Your task to perform on an android device: open app "NewsBreak: Local News & Alerts" (install if not already installed) and go to login screen Image 0: 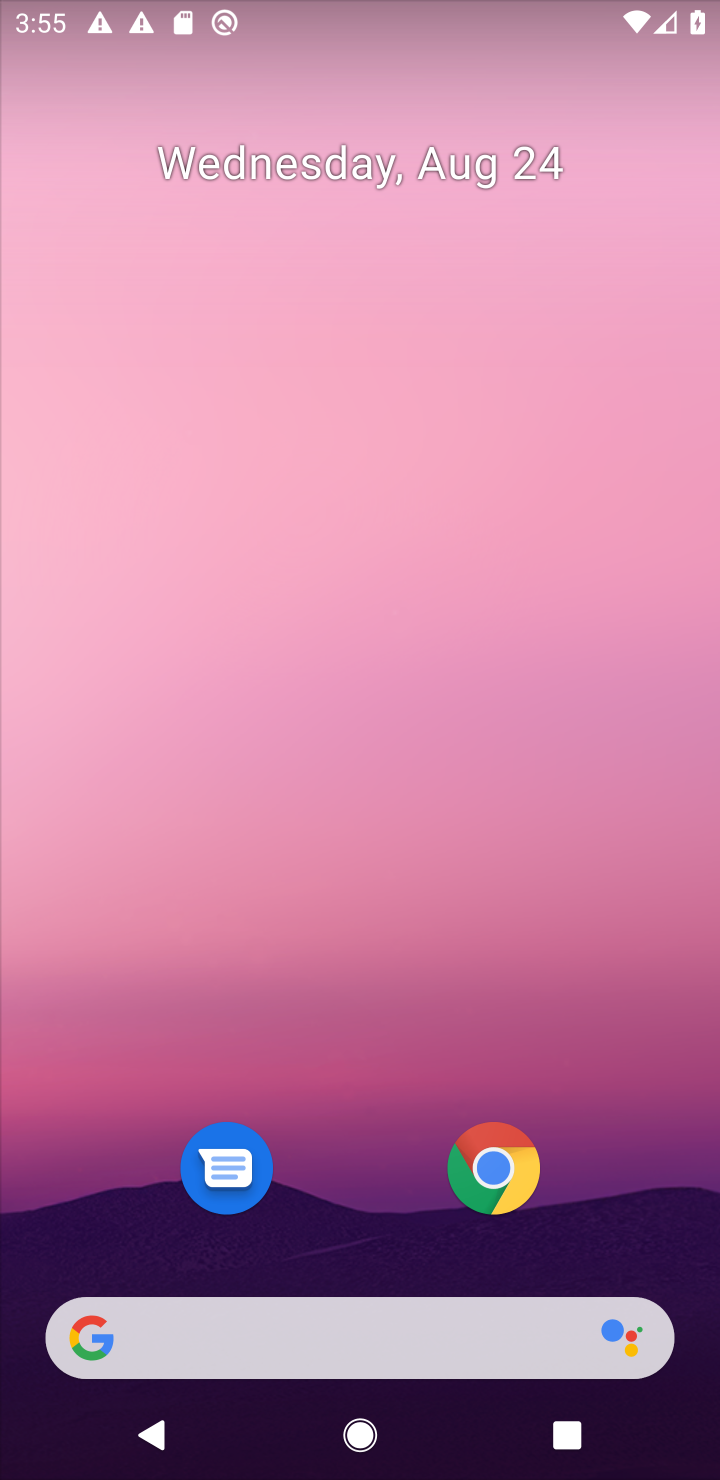
Step 0: drag from (646, 996) to (615, 281)
Your task to perform on an android device: open app "NewsBreak: Local News & Alerts" (install if not already installed) and go to login screen Image 1: 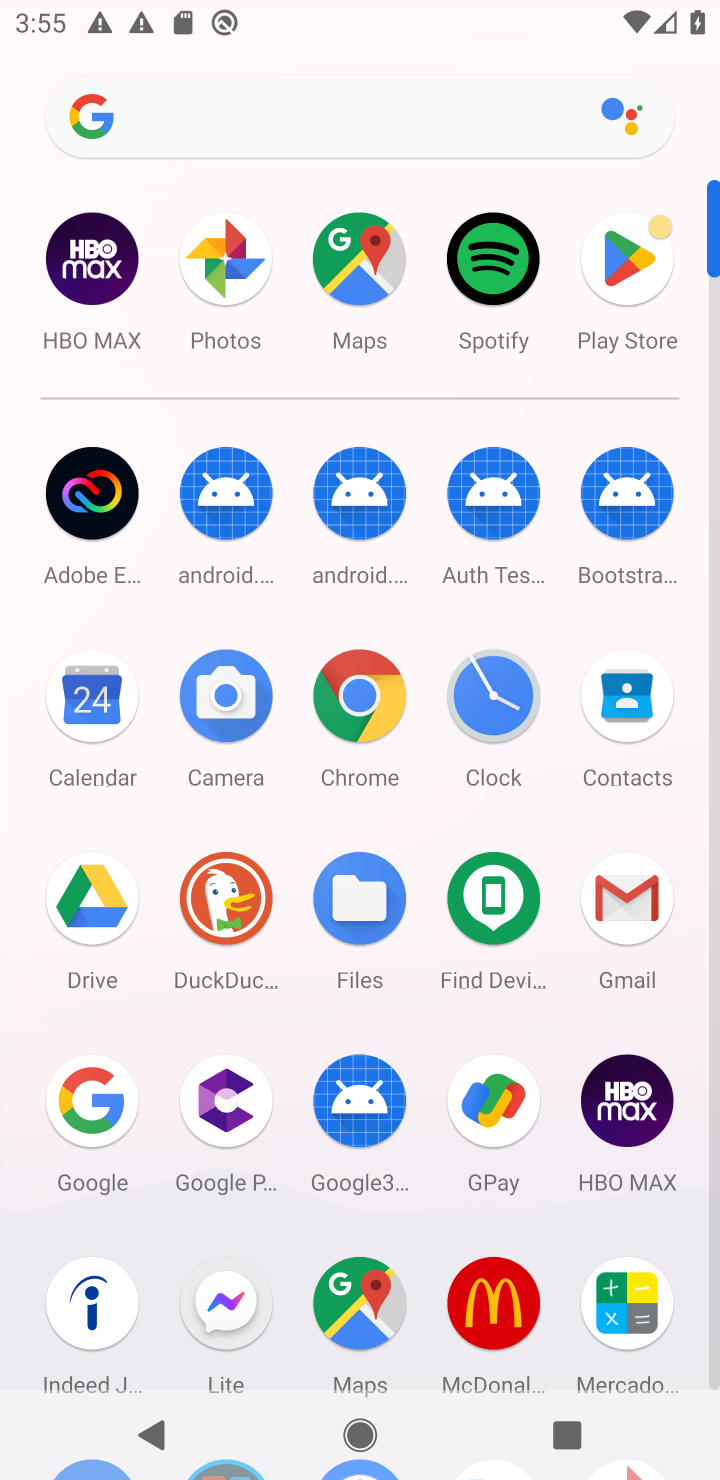
Step 1: click (625, 269)
Your task to perform on an android device: open app "NewsBreak: Local News & Alerts" (install if not already installed) and go to login screen Image 2: 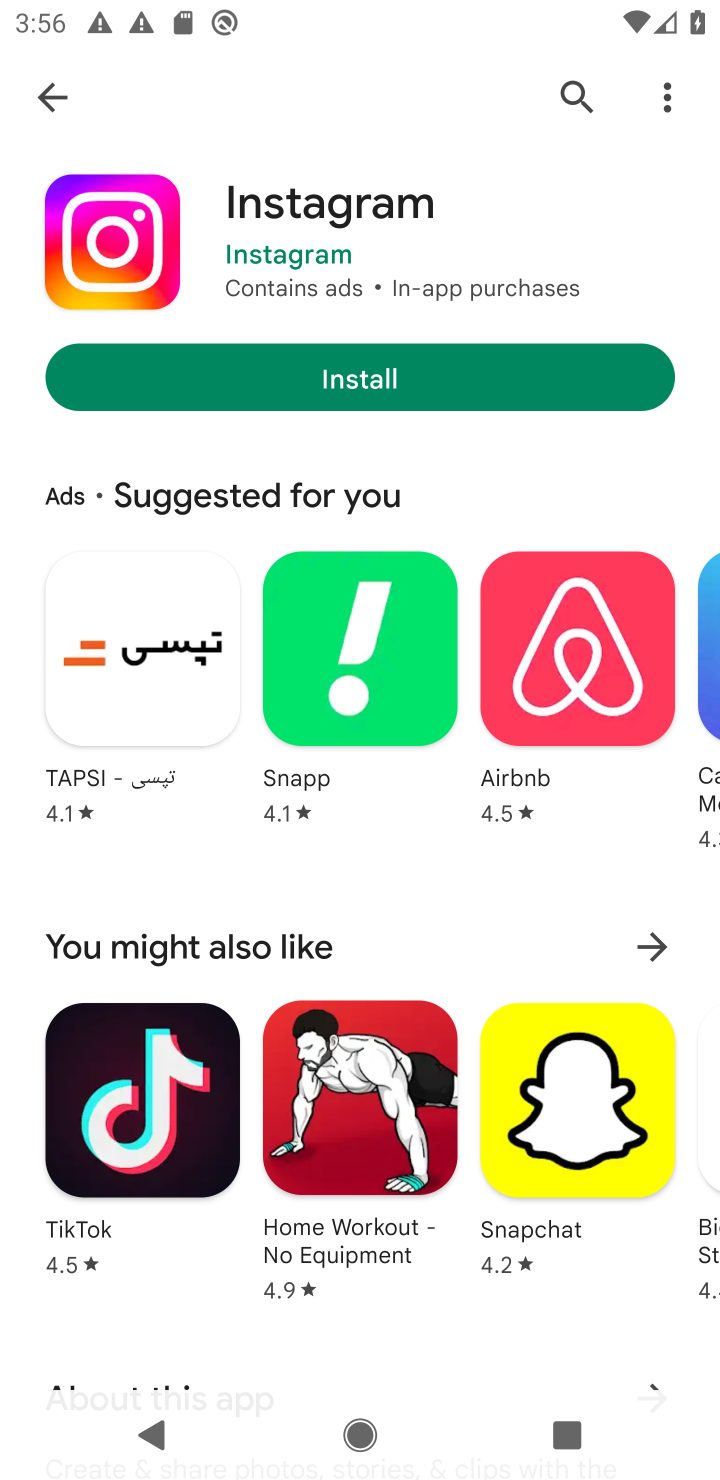
Step 2: click (564, 98)
Your task to perform on an android device: open app "NewsBreak: Local News & Alerts" (install if not already installed) and go to login screen Image 3: 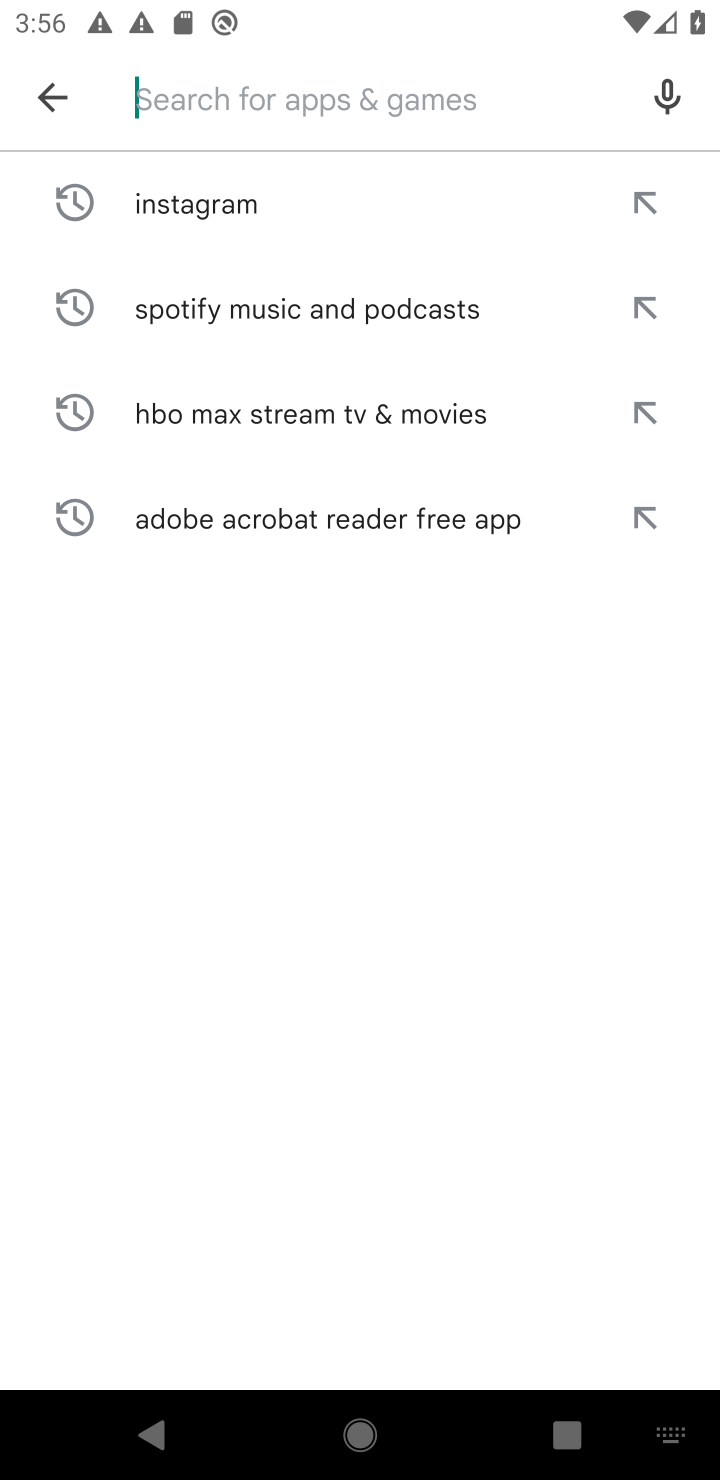
Step 3: type "NewsBreak: Local News & Alerts"
Your task to perform on an android device: open app "NewsBreak: Local News & Alerts" (install if not already installed) and go to login screen Image 4: 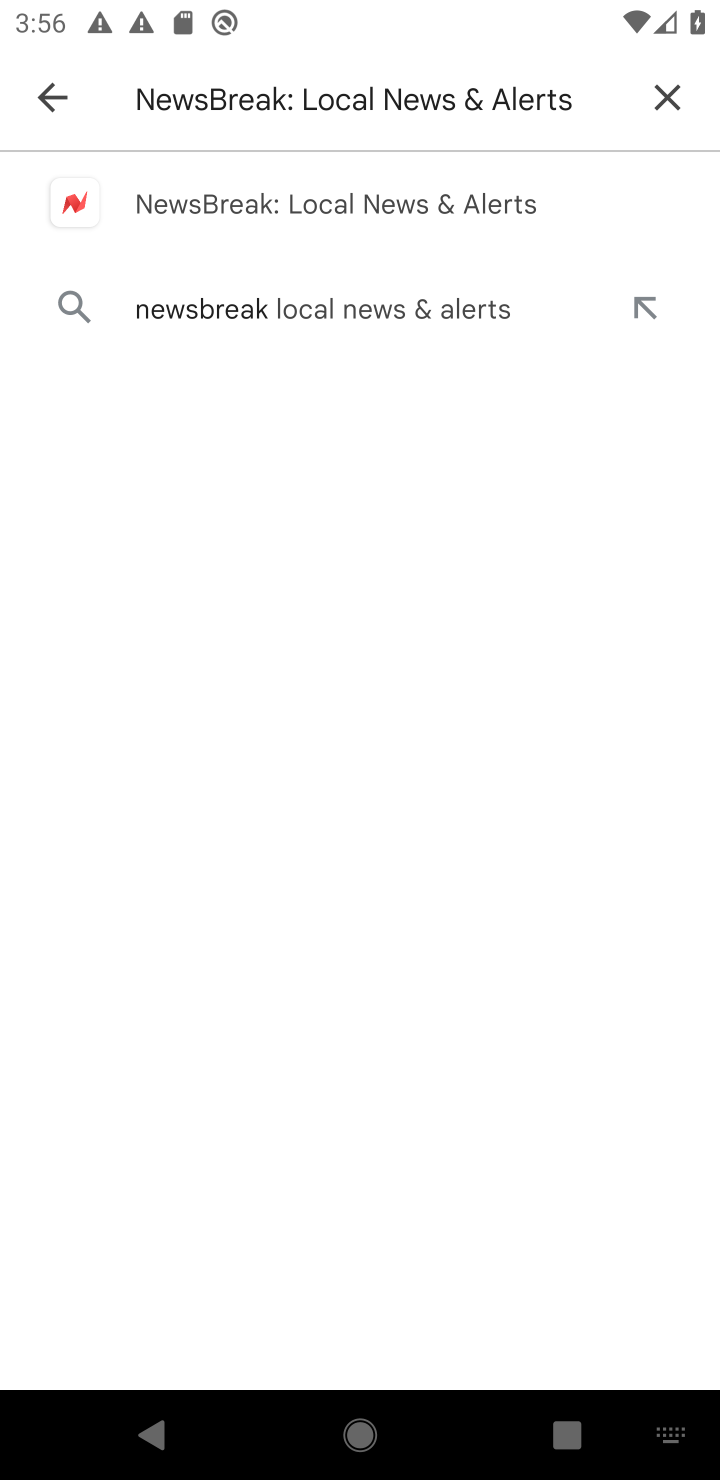
Step 4: click (222, 191)
Your task to perform on an android device: open app "NewsBreak: Local News & Alerts" (install if not already installed) and go to login screen Image 5: 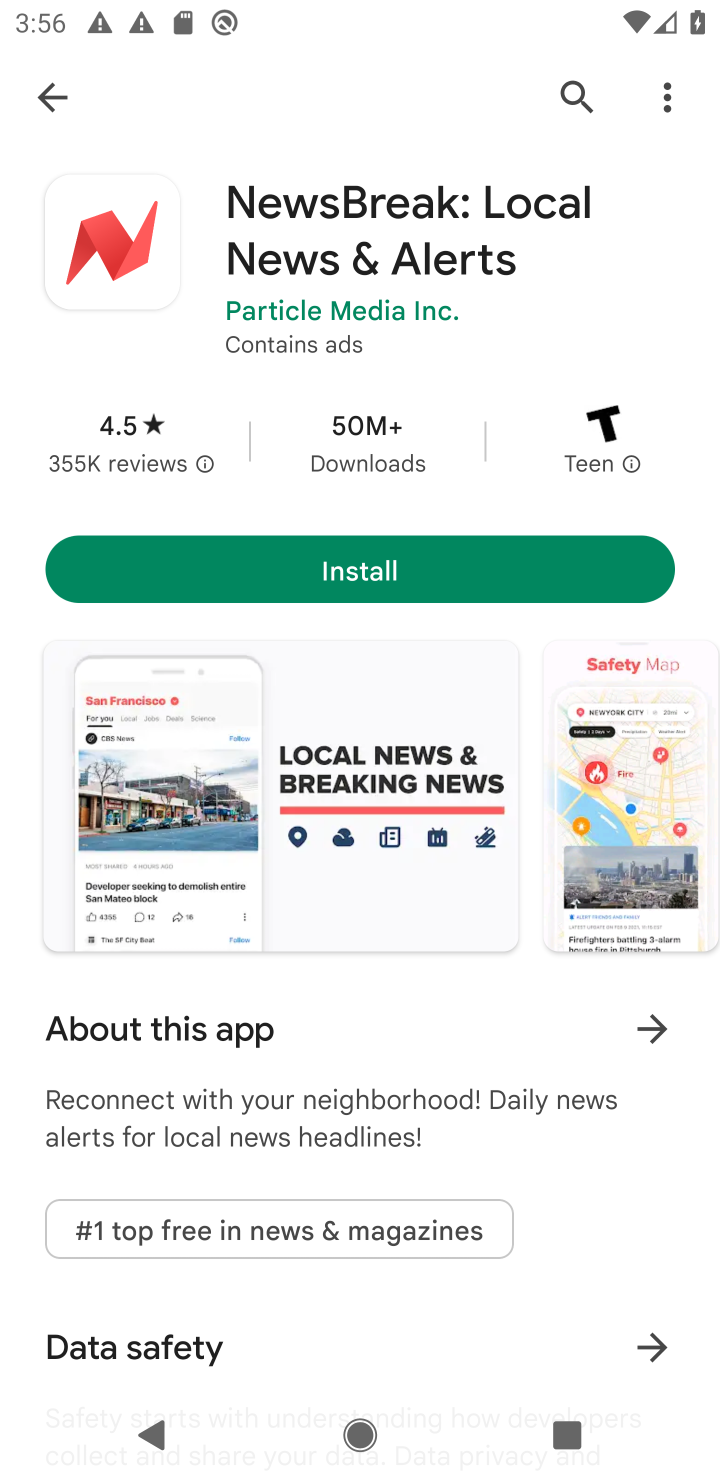
Step 5: click (370, 570)
Your task to perform on an android device: open app "NewsBreak: Local News & Alerts" (install if not already installed) and go to login screen Image 6: 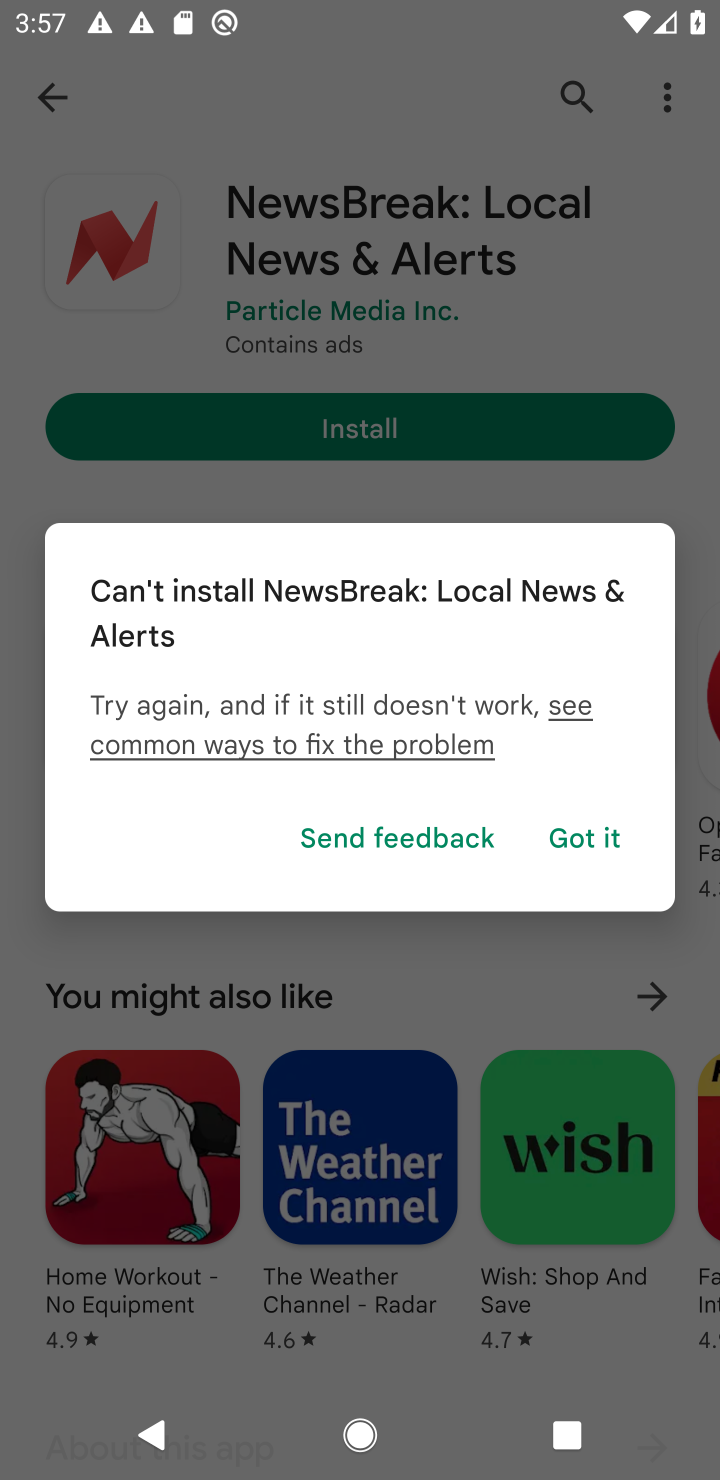
Step 6: click (582, 834)
Your task to perform on an android device: open app "NewsBreak: Local News & Alerts" (install if not already installed) and go to login screen Image 7: 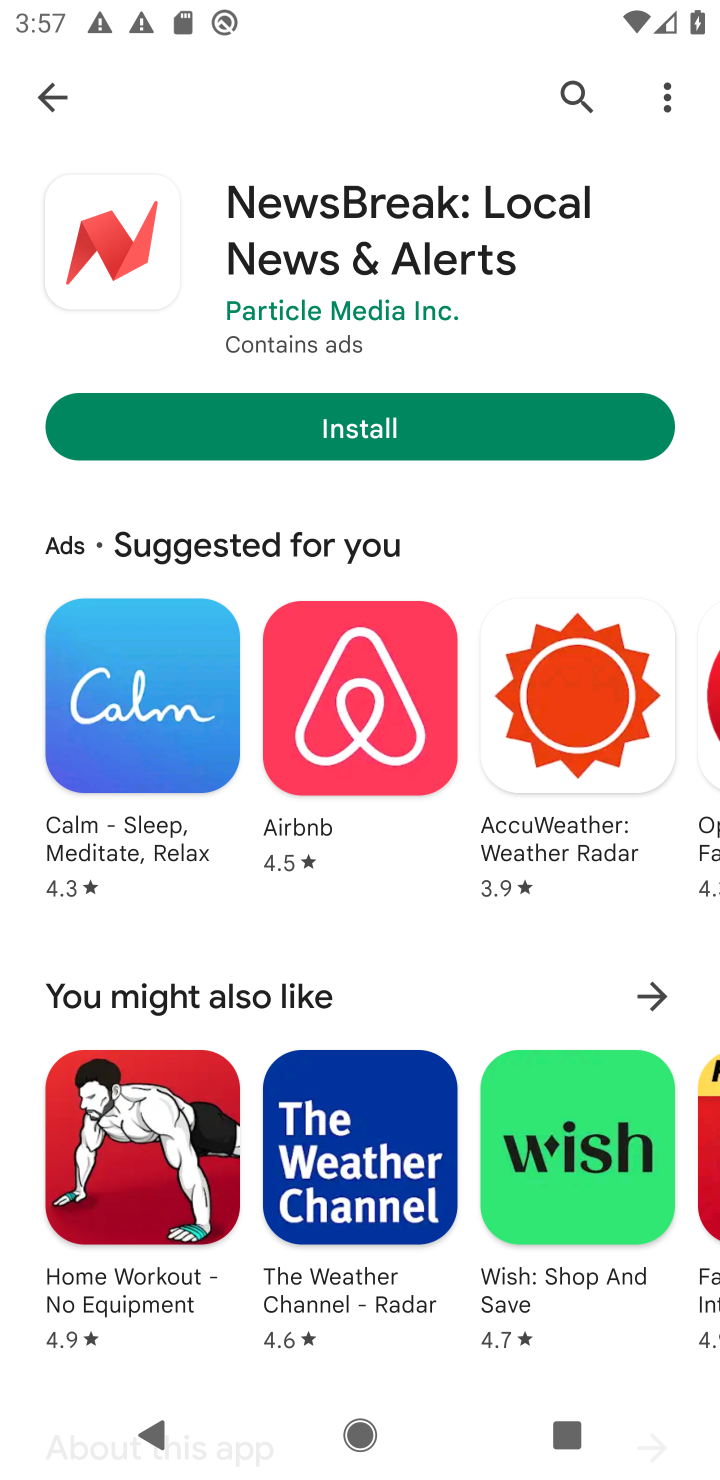
Step 7: task complete